Your task to perform on an android device: check android version Image 0: 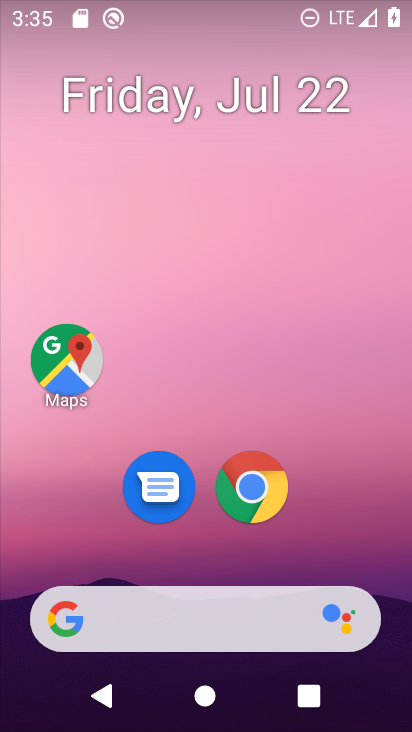
Step 0: drag from (165, 516) to (240, 14)
Your task to perform on an android device: check android version Image 1: 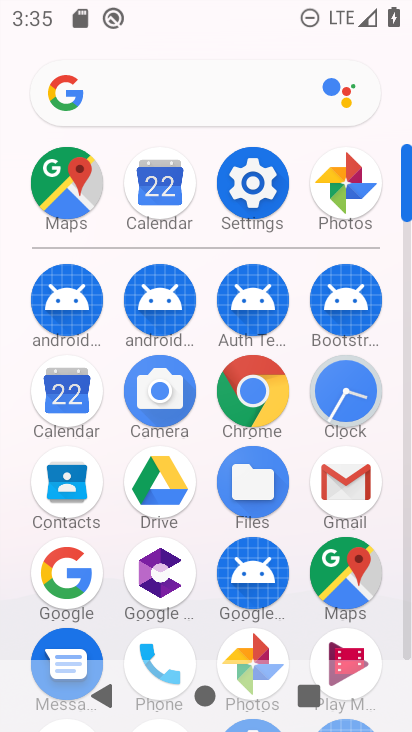
Step 1: click (259, 190)
Your task to perform on an android device: check android version Image 2: 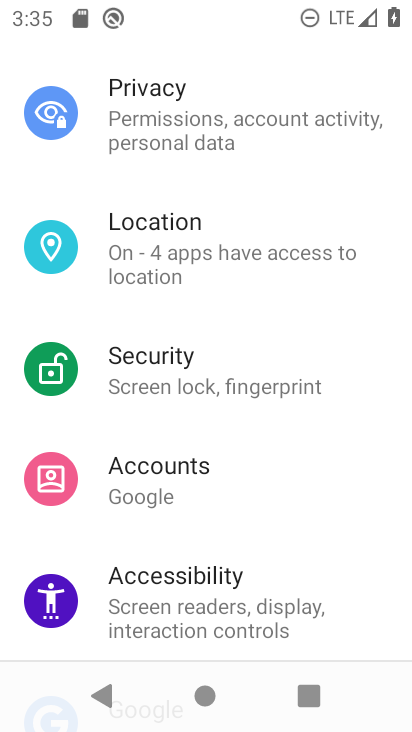
Step 2: drag from (178, 616) to (307, 13)
Your task to perform on an android device: check android version Image 3: 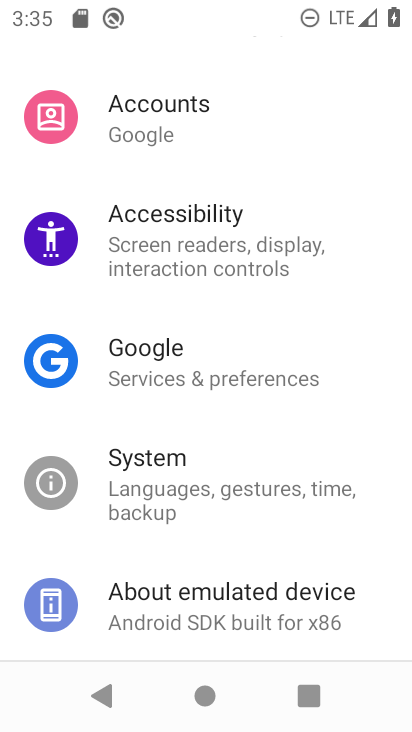
Step 3: drag from (170, 585) to (273, 7)
Your task to perform on an android device: check android version Image 4: 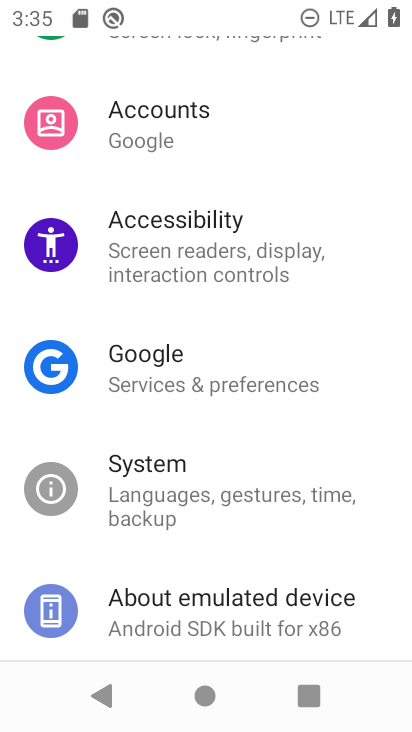
Step 4: click (153, 603)
Your task to perform on an android device: check android version Image 5: 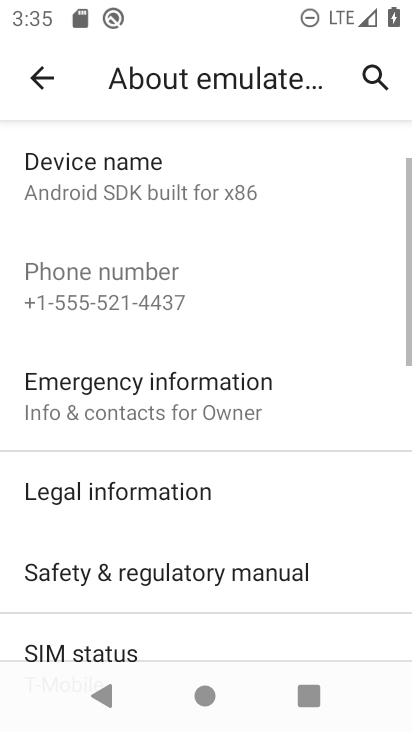
Step 5: drag from (163, 536) to (257, 28)
Your task to perform on an android device: check android version Image 6: 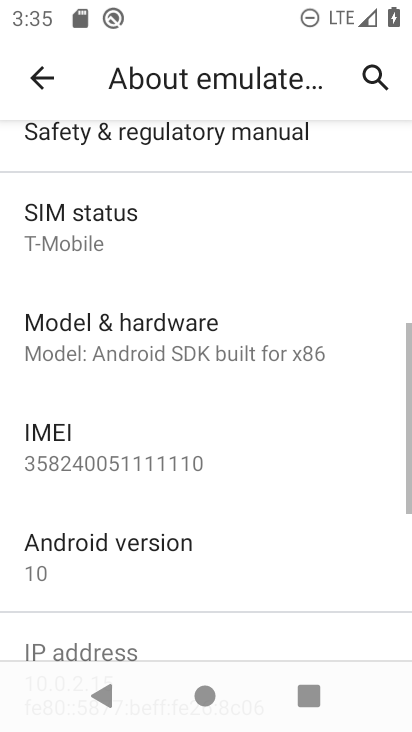
Step 6: click (97, 547)
Your task to perform on an android device: check android version Image 7: 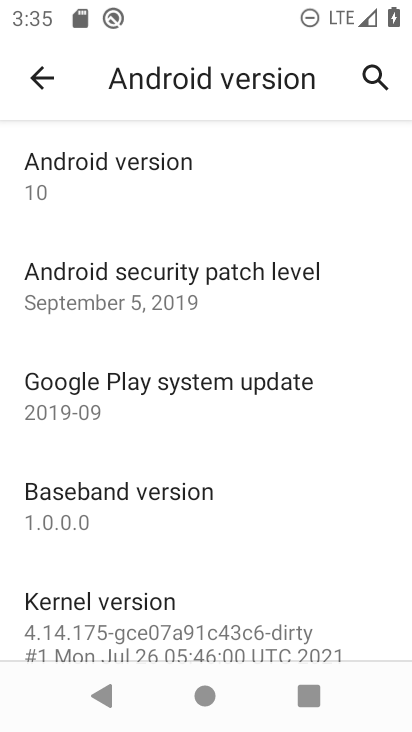
Step 7: click (78, 170)
Your task to perform on an android device: check android version Image 8: 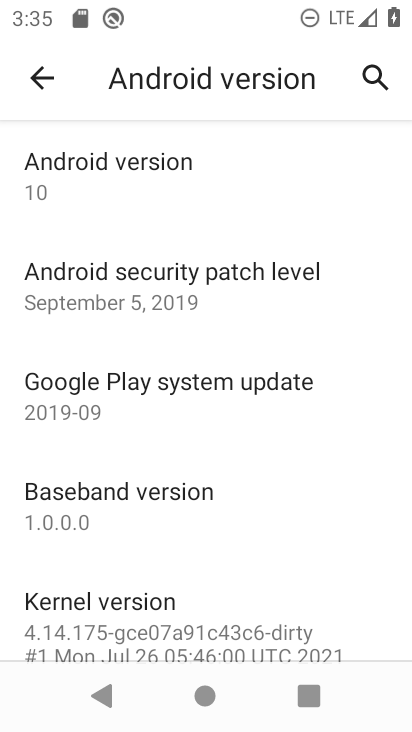
Step 8: task complete